Your task to perform on an android device: Show me popular videos on Youtube Image 0: 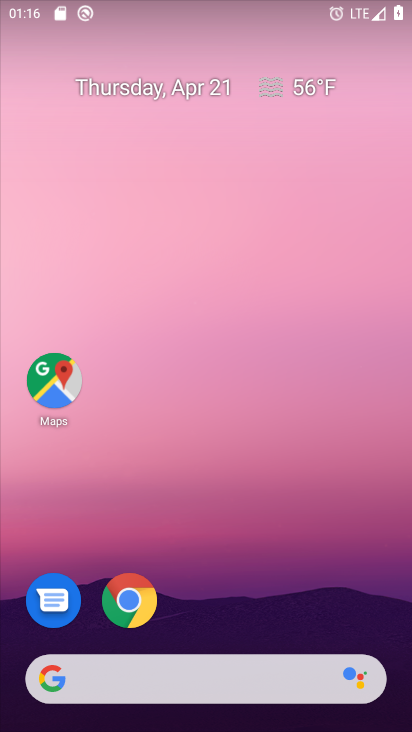
Step 0: drag from (252, 615) to (267, 104)
Your task to perform on an android device: Show me popular videos on Youtube Image 1: 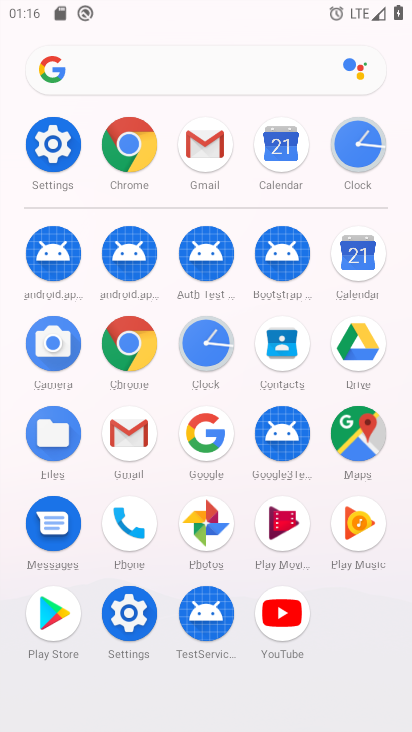
Step 1: click (278, 611)
Your task to perform on an android device: Show me popular videos on Youtube Image 2: 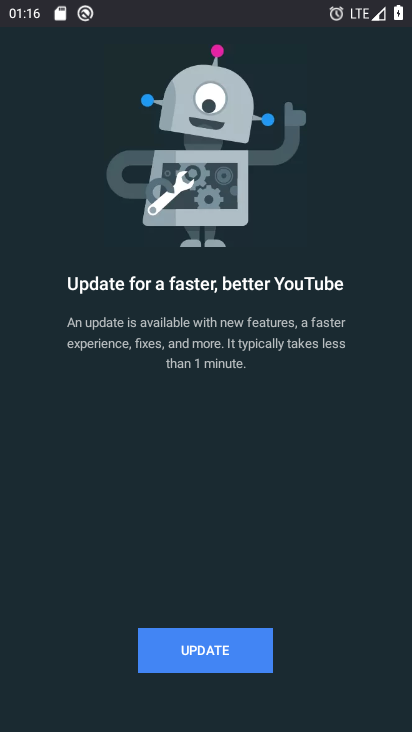
Step 2: click (250, 651)
Your task to perform on an android device: Show me popular videos on Youtube Image 3: 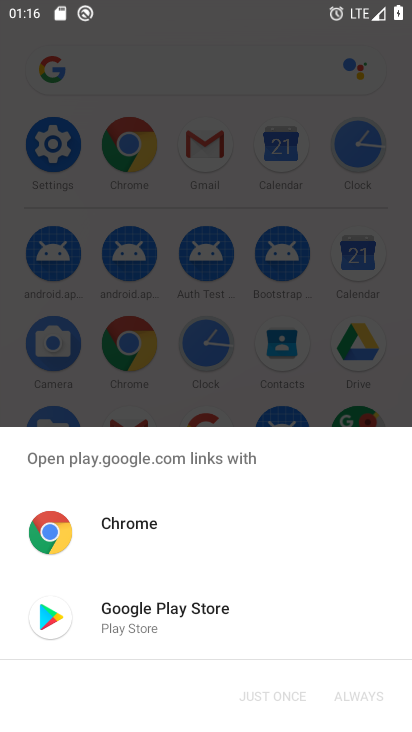
Step 3: press back button
Your task to perform on an android device: Show me popular videos on Youtube Image 4: 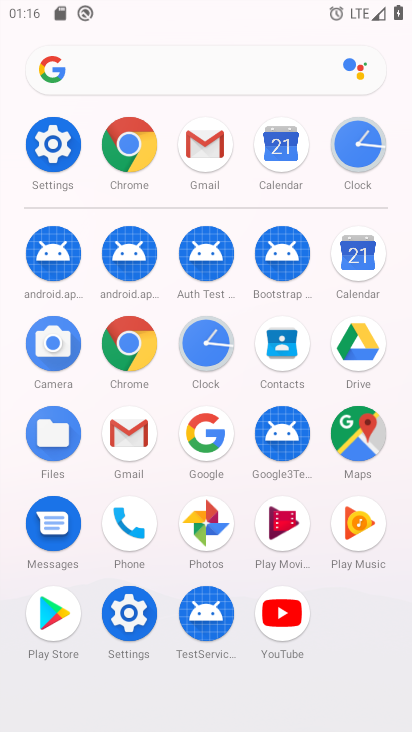
Step 4: click (271, 609)
Your task to perform on an android device: Show me popular videos on Youtube Image 5: 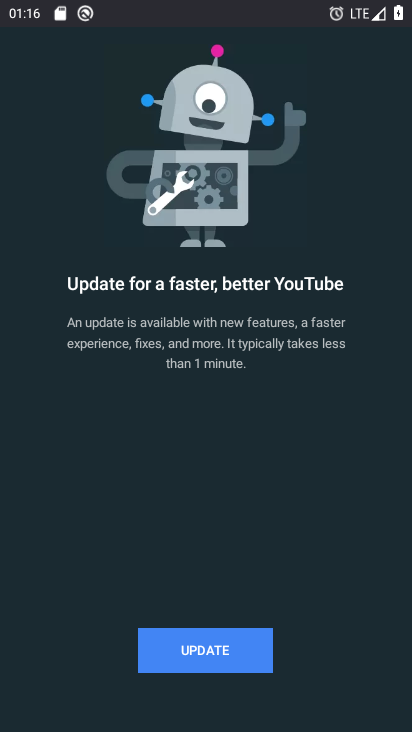
Step 5: click (234, 647)
Your task to perform on an android device: Show me popular videos on Youtube Image 6: 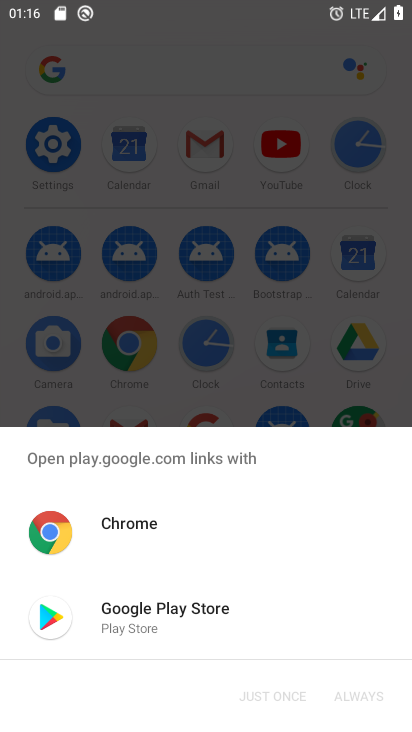
Step 6: click (230, 609)
Your task to perform on an android device: Show me popular videos on Youtube Image 7: 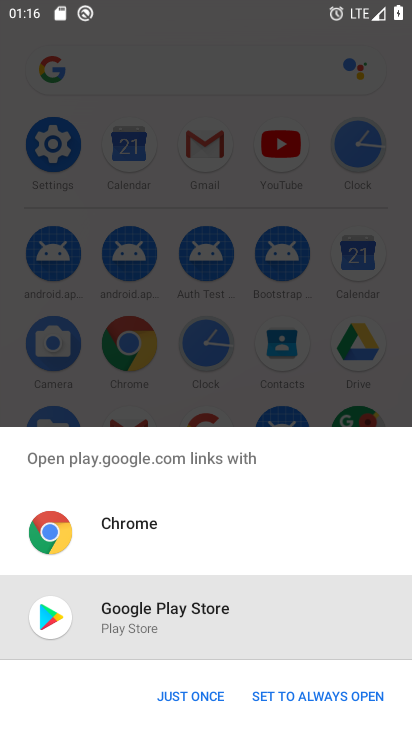
Step 7: click (178, 686)
Your task to perform on an android device: Show me popular videos on Youtube Image 8: 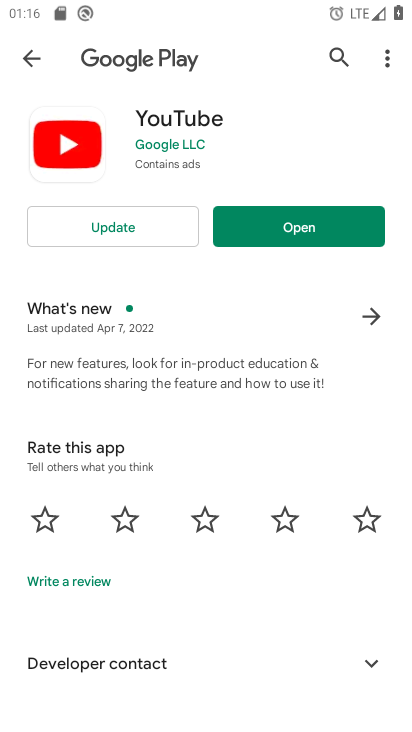
Step 8: click (345, 230)
Your task to perform on an android device: Show me popular videos on Youtube Image 9: 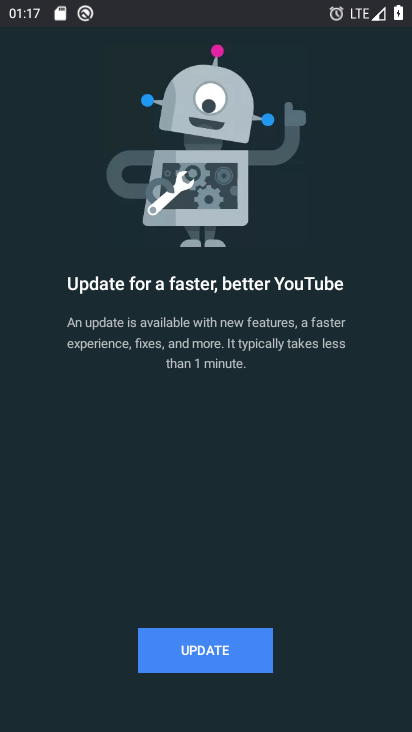
Step 9: task complete